Your task to perform on an android device: Open Amazon Image 0: 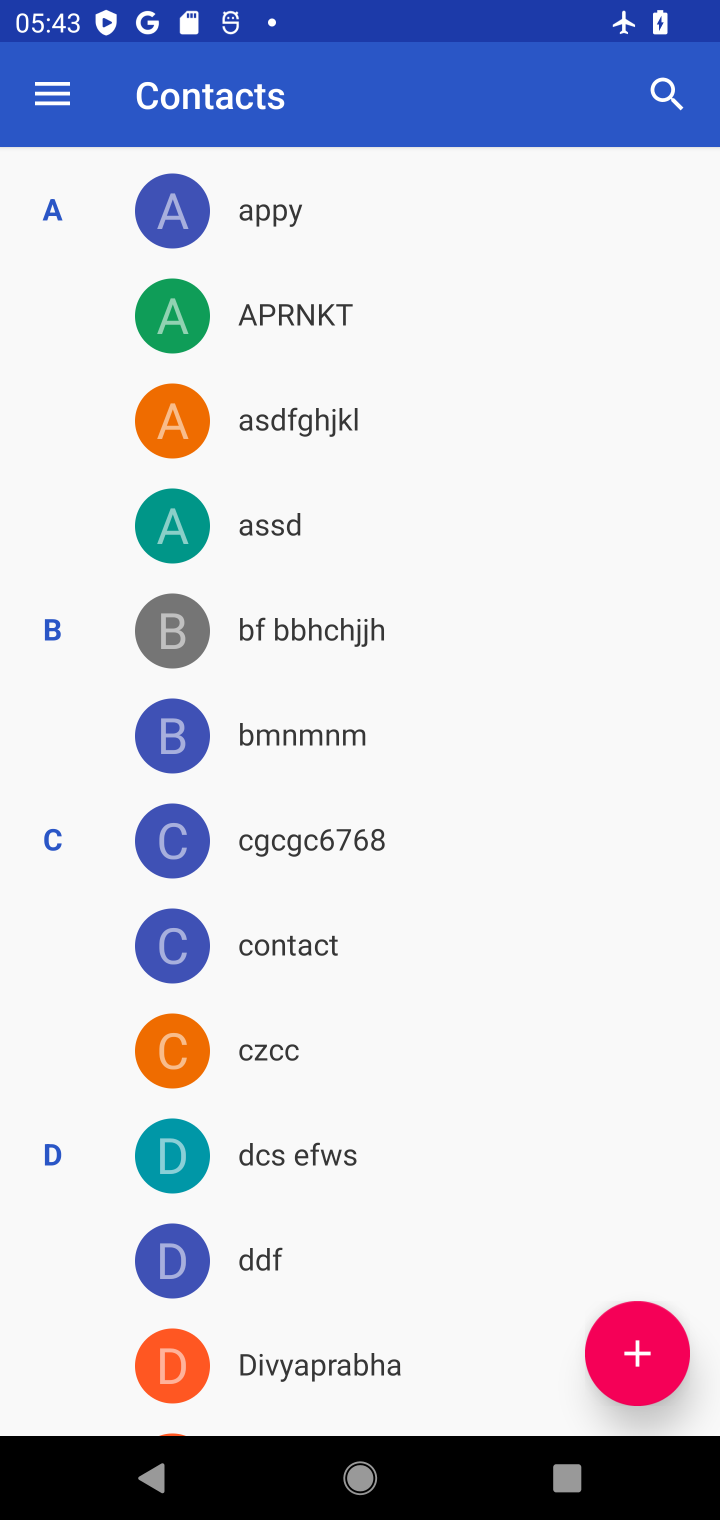
Step 0: press home button
Your task to perform on an android device: Open Amazon Image 1: 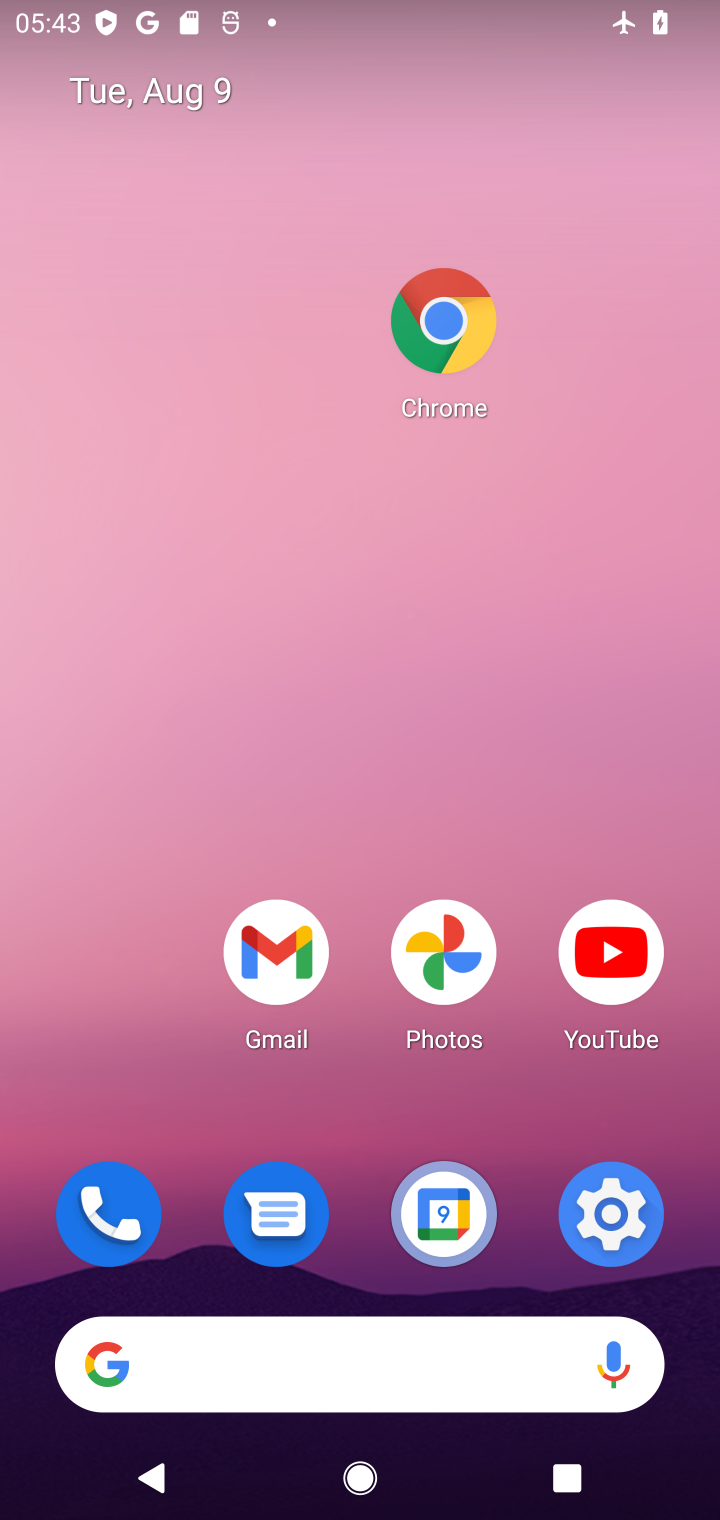
Step 1: click (445, 345)
Your task to perform on an android device: Open Amazon Image 2: 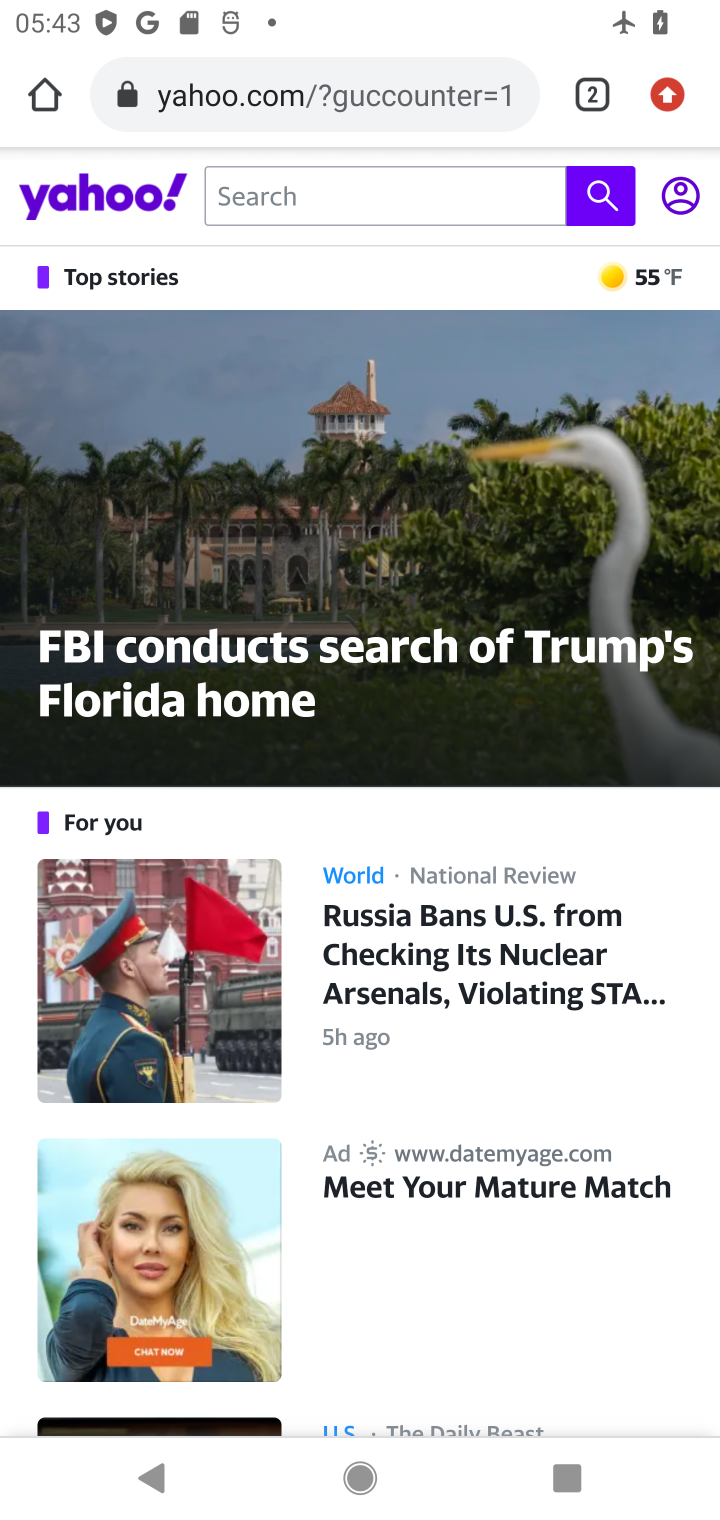
Step 2: click (575, 112)
Your task to perform on an android device: Open Amazon Image 3: 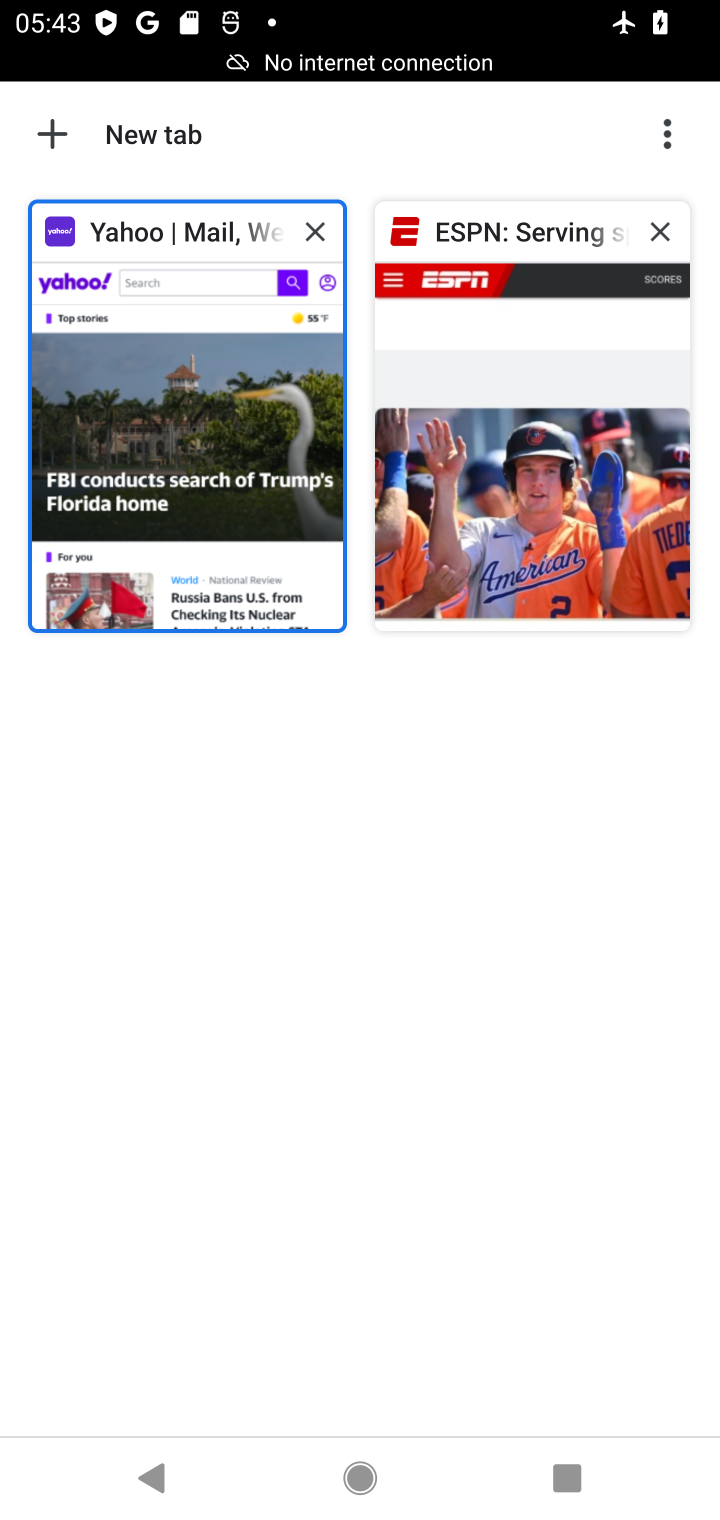
Step 3: click (49, 132)
Your task to perform on an android device: Open Amazon Image 4: 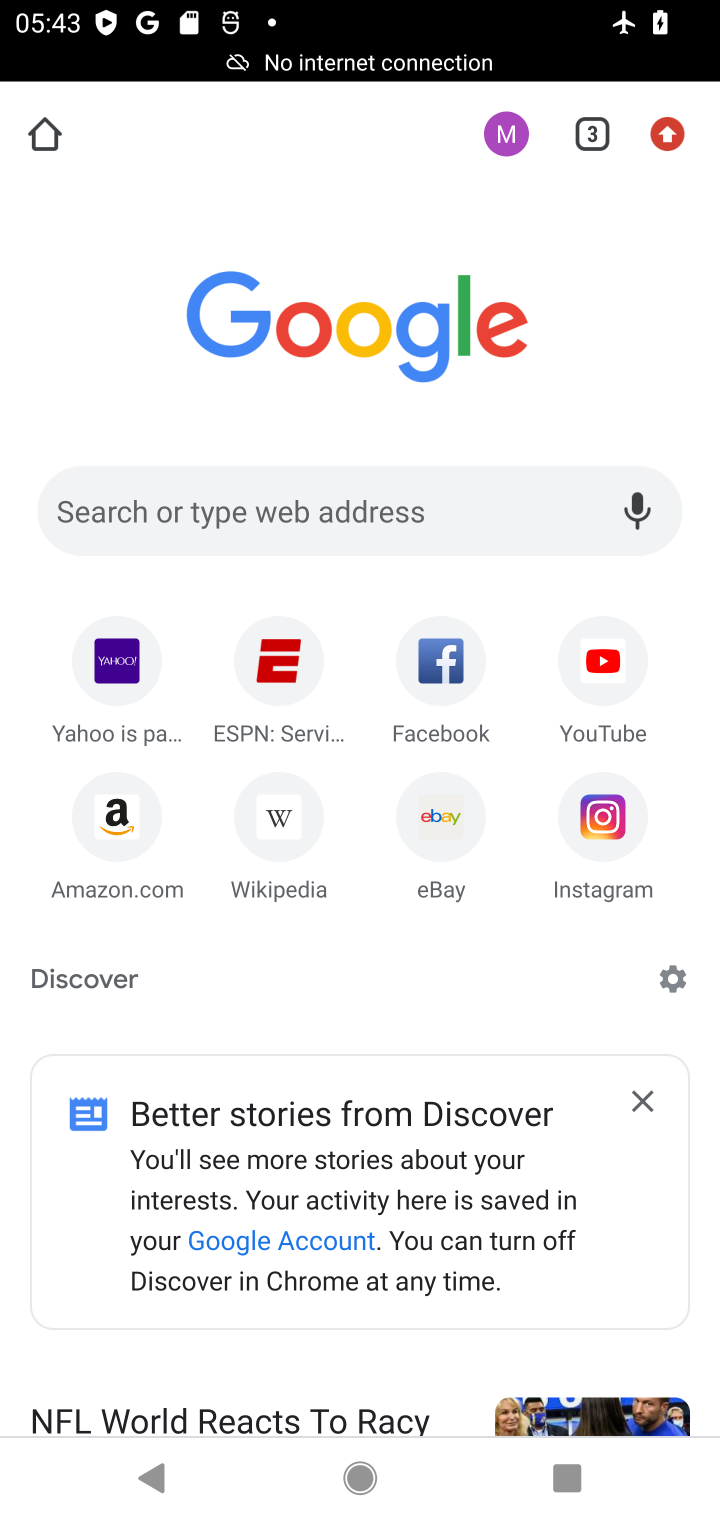
Step 4: click (122, 814)
Your task to perform on an android device: Open Amazon Image 5: 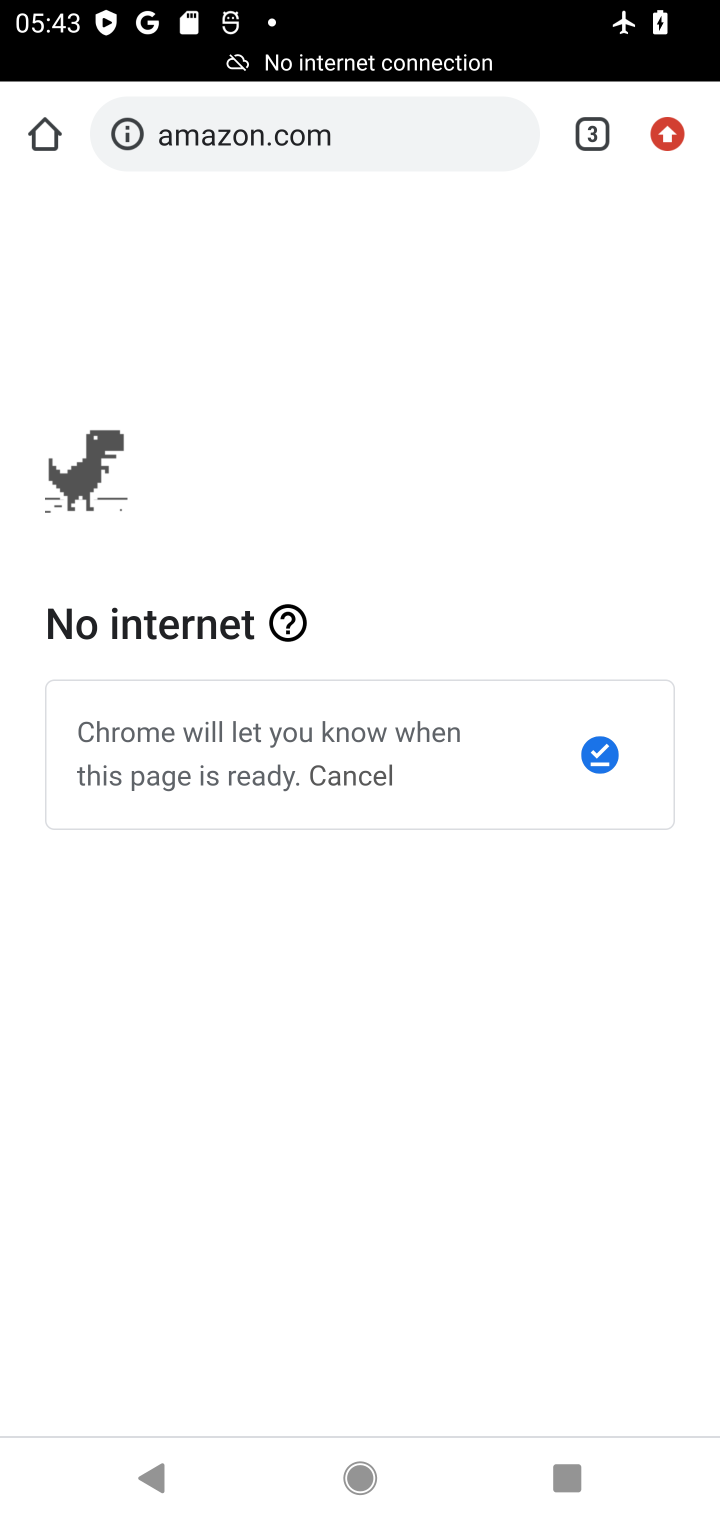
Step 5: press home button
Your task to perform on an android device: Open Amazon Image 6: 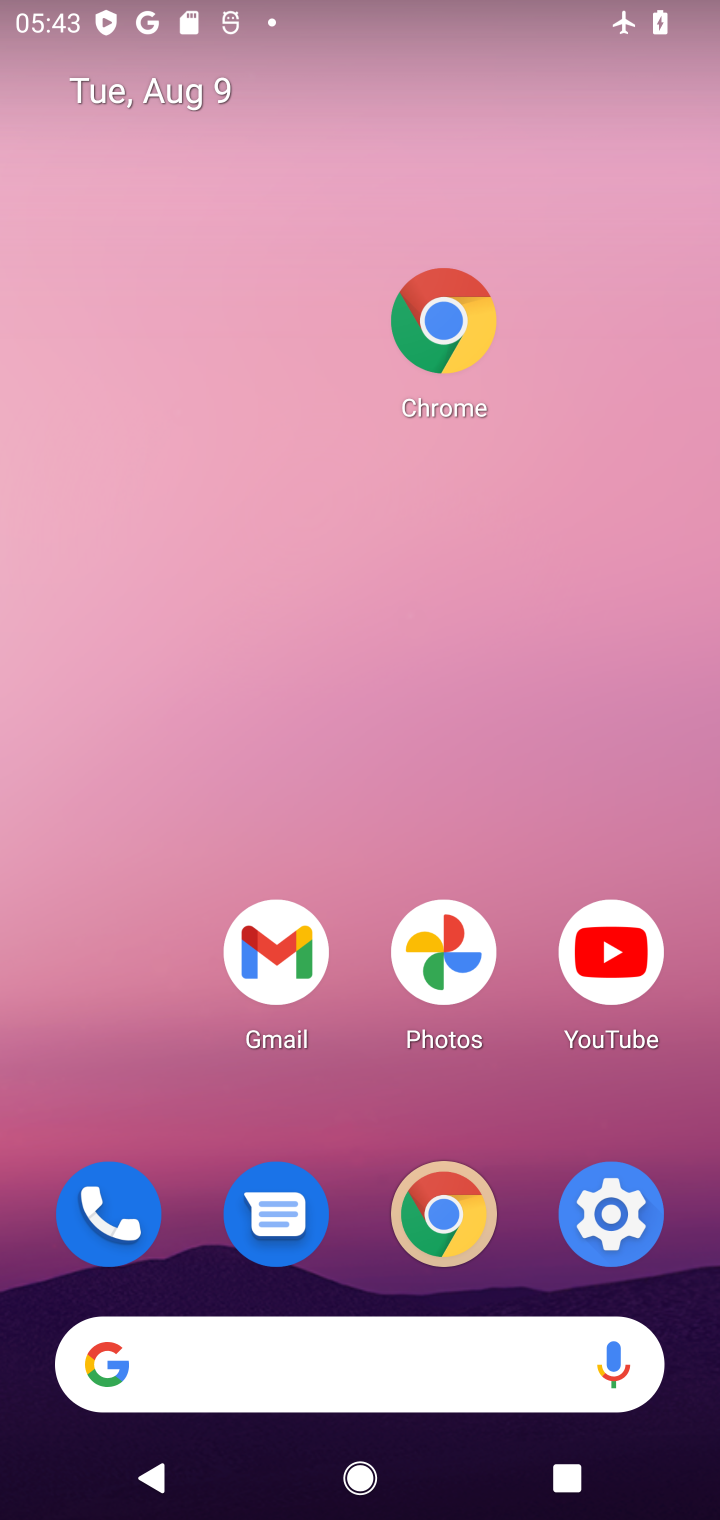
Step 6: click (615, 1239)
Your task to perform on an android device: Open Amazon Image 7: 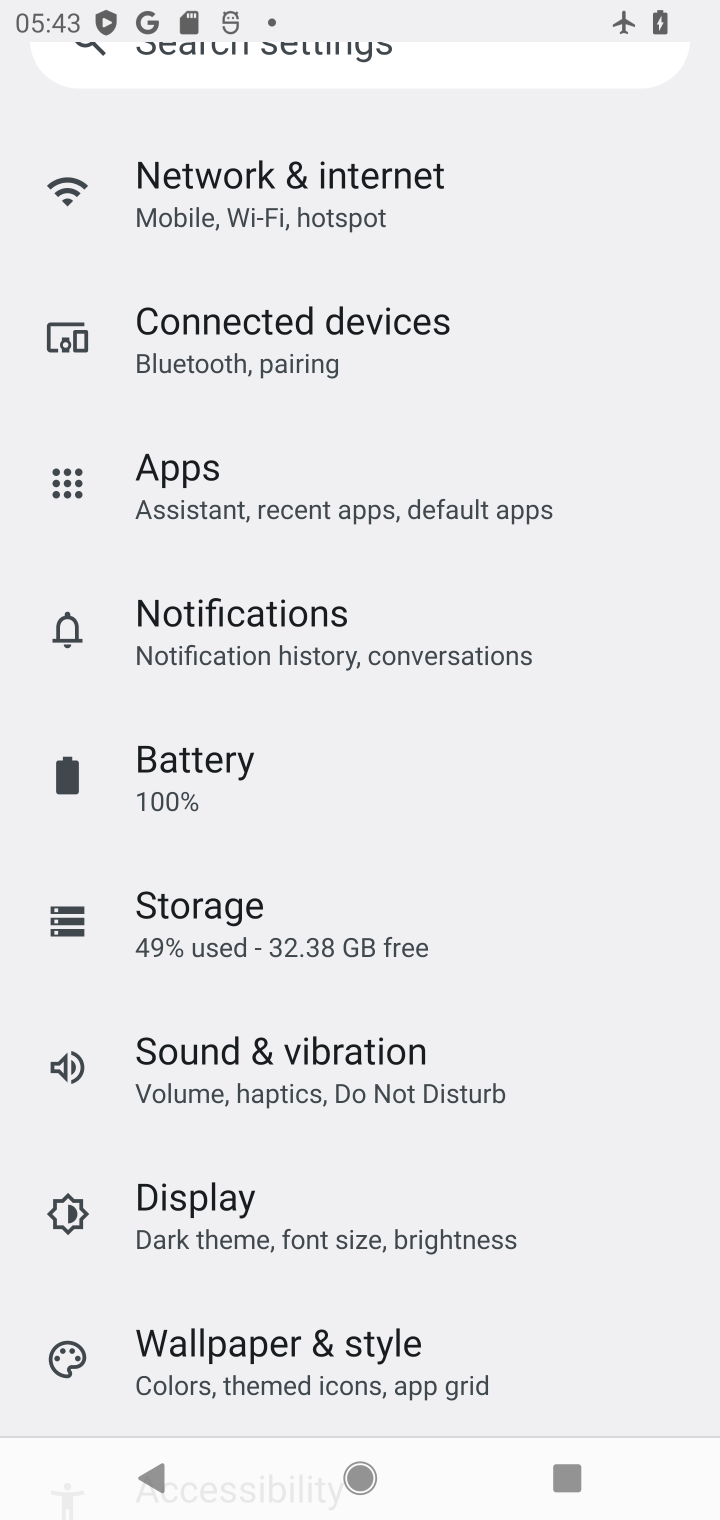
Step 7: drag from (286, 338) to (265, 506)
Your task to perform on an android device: Open Amazon Image 8: 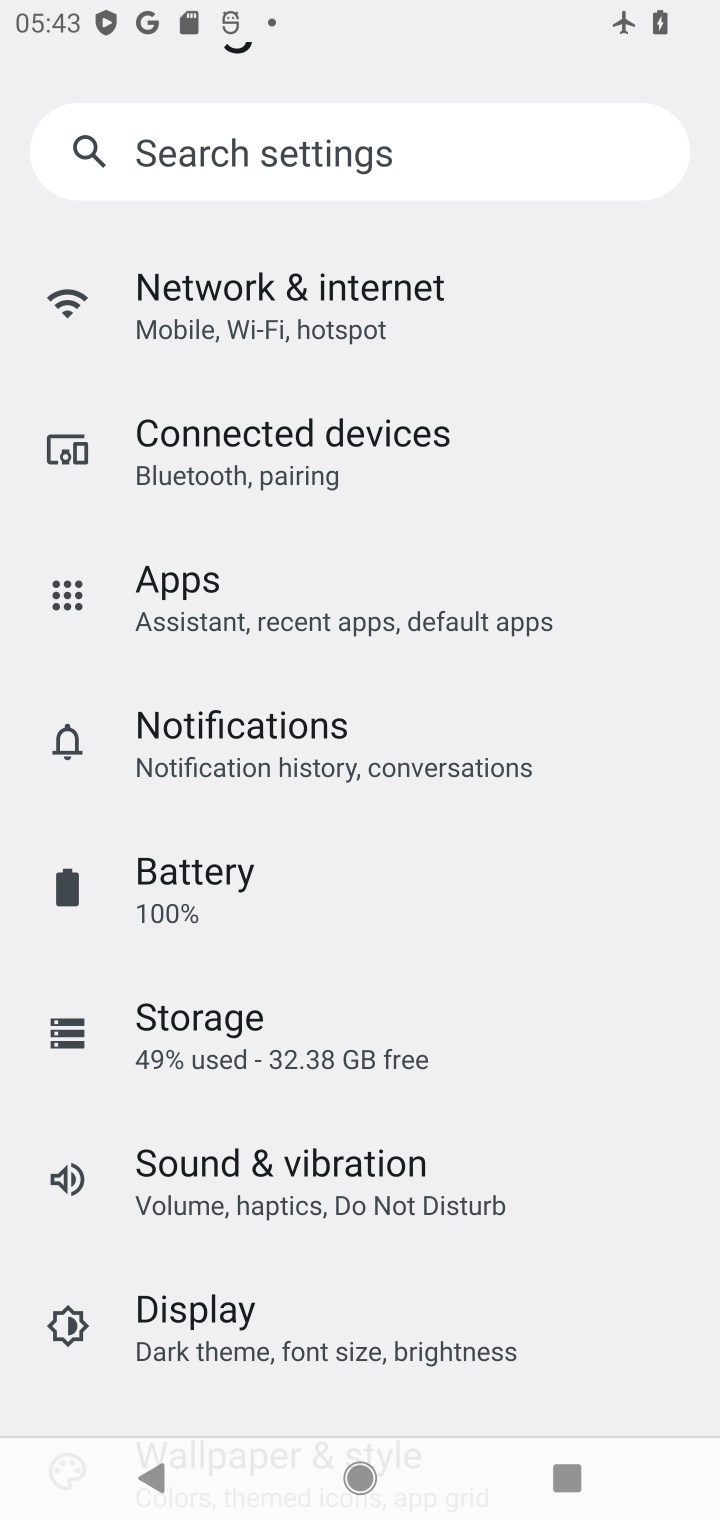
Step 8: click (264, 324)
Your task to perform on an android device: Open Amazon Image 9: 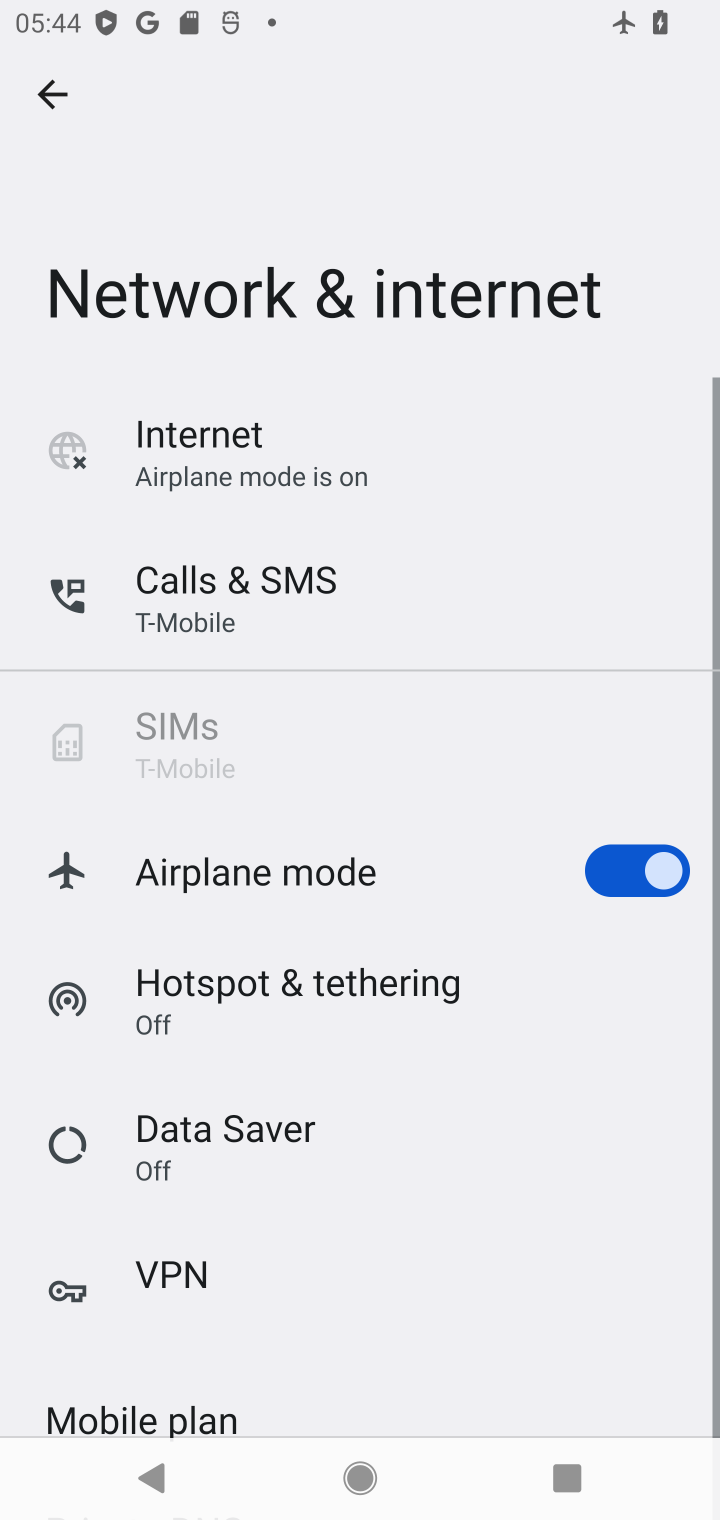
Step 9: click (608, 853)
Your task to perform on an android device: Open Amazon Image 10: 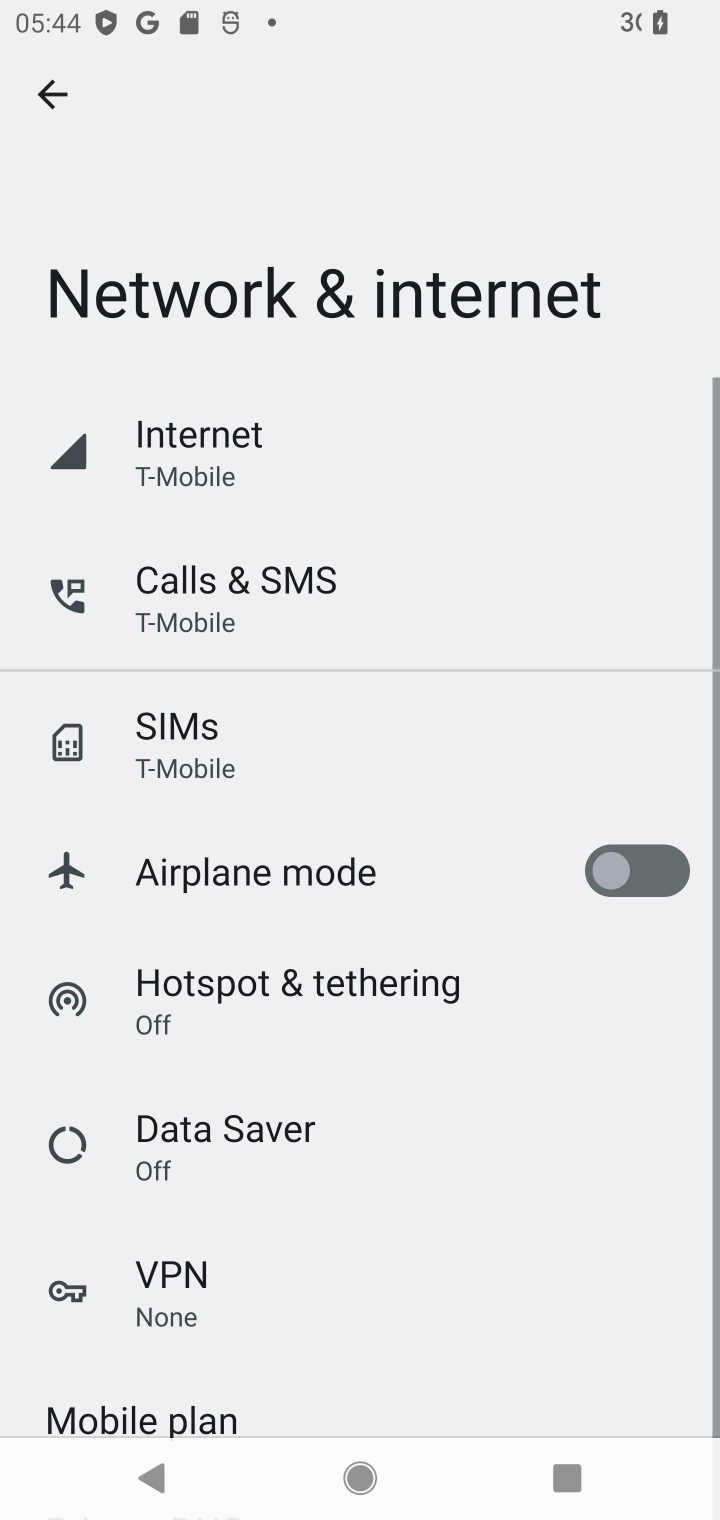
Step 10: press home button
Your task to perform on an android device: Open Amazon Image 11: 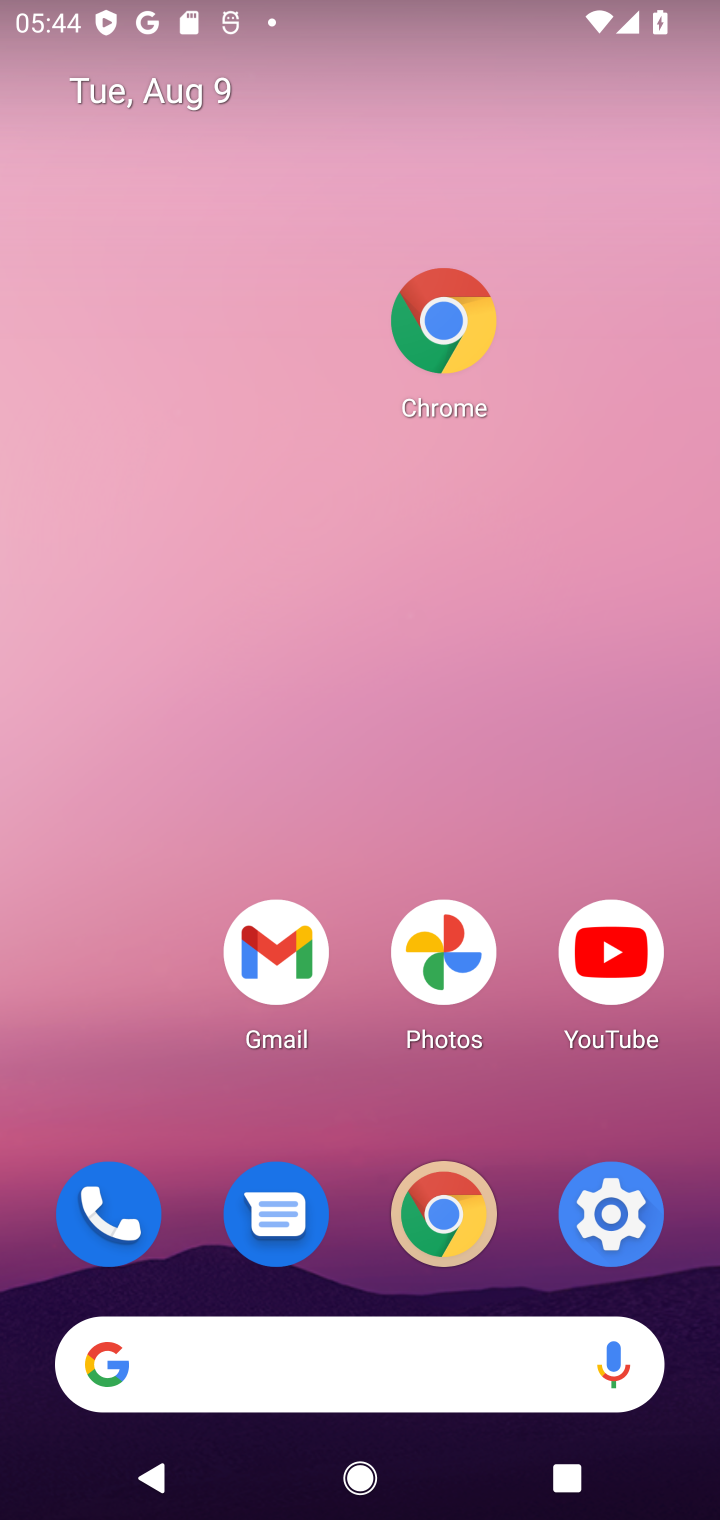
Step 11: click (436, 1214)
Your task to perform on an android device: Open Amazon Image 12: 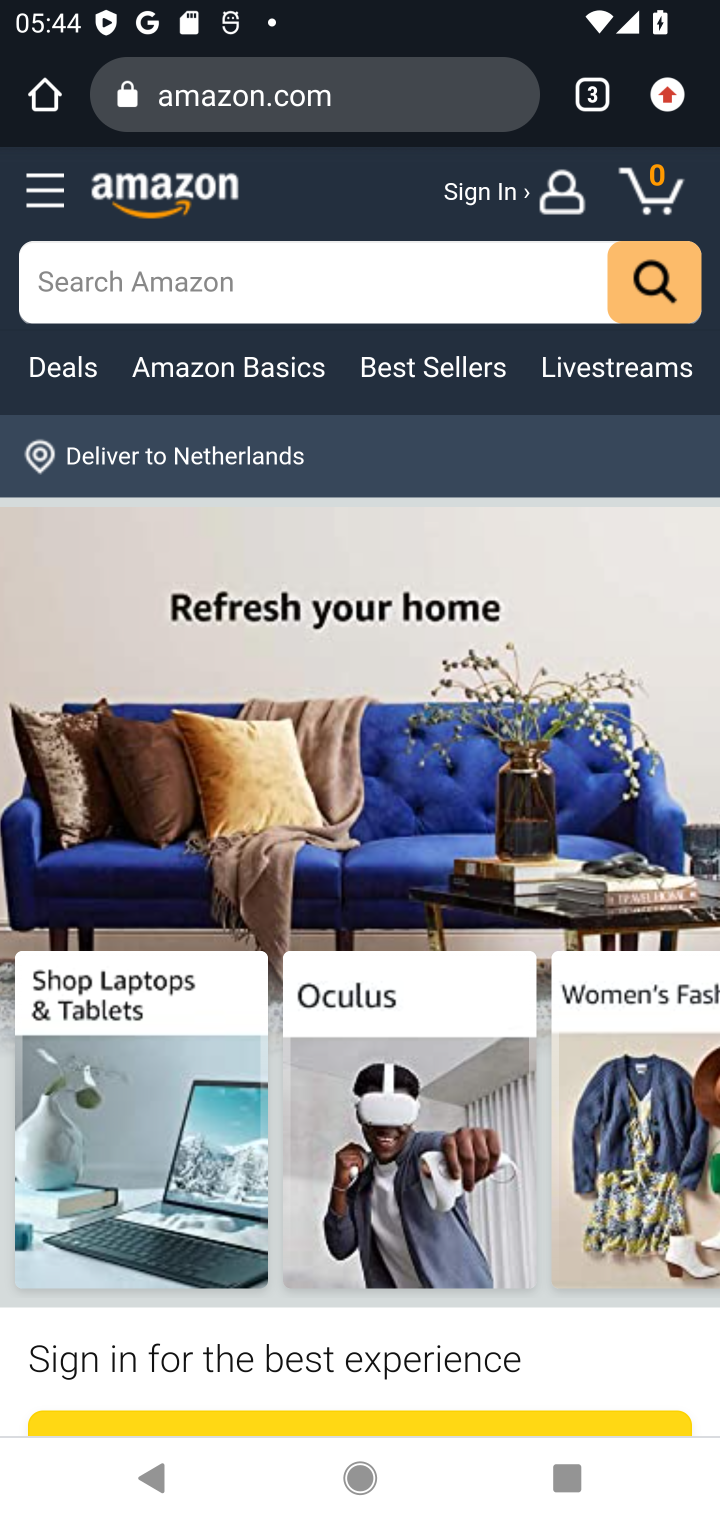
Step 12: task complete